Your task to perform on an android device: open chrome and create a bookmark for the current page Image 0: 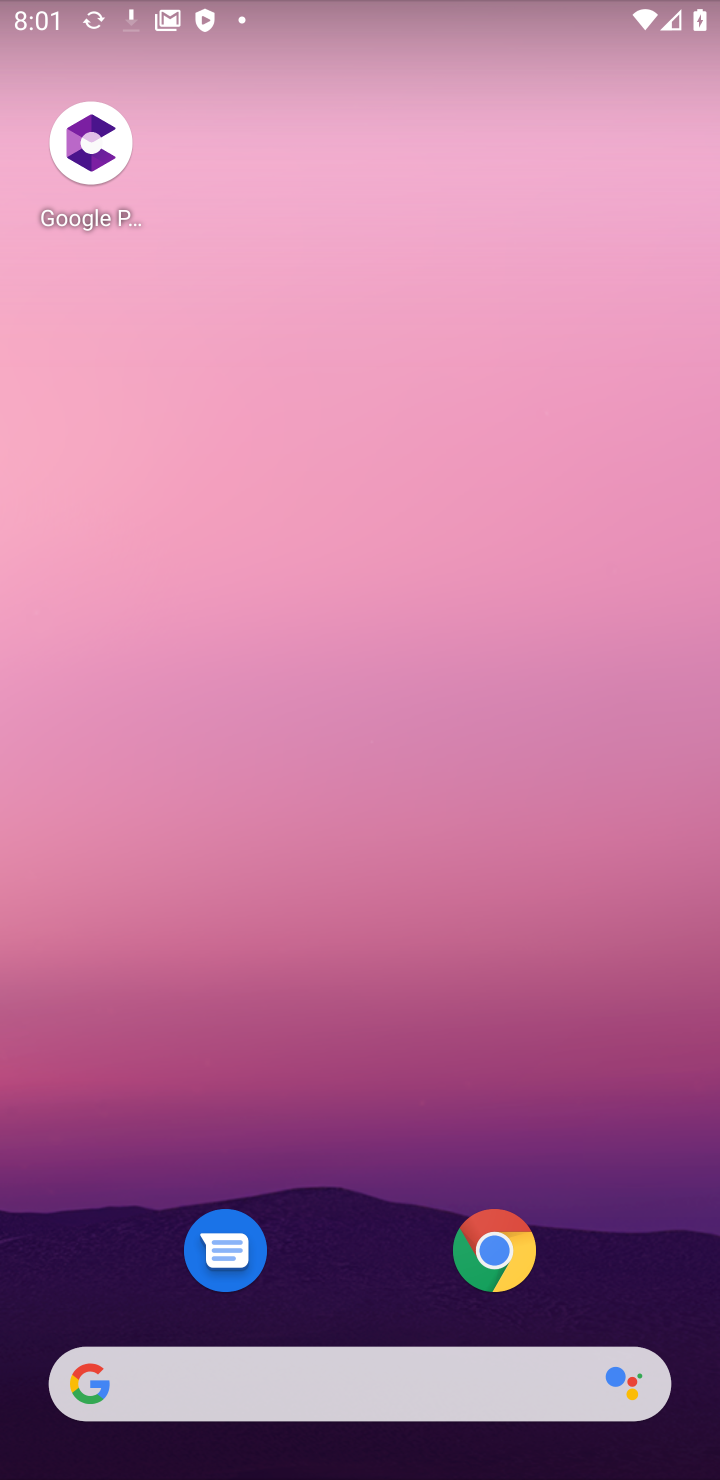
Step 0: click (498, 1263)
Your task to perform on an android device: open chrome and create a bookmark for the current page Image 1: 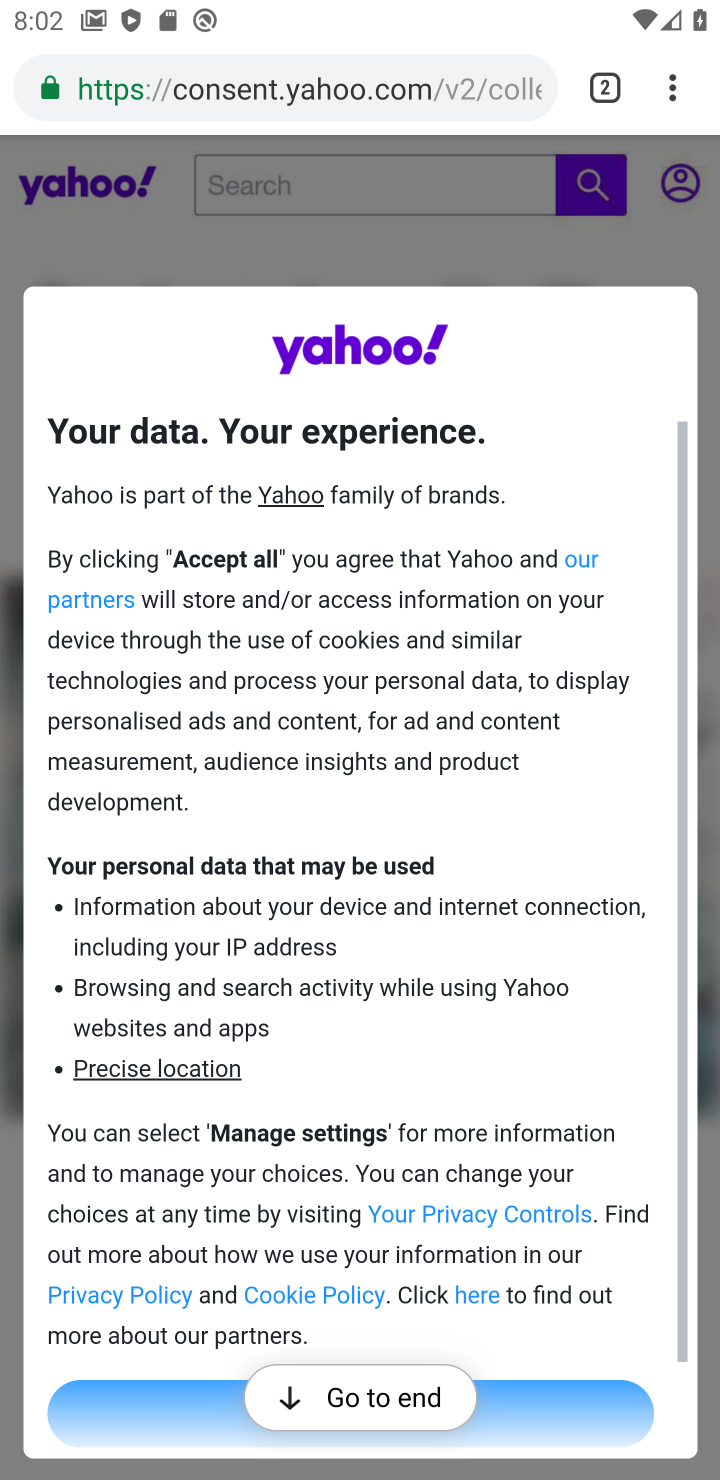
Step 1: click (667, 75)
Your task to perform on an android device: open chrome and create a bookmark for the current page Image 2: 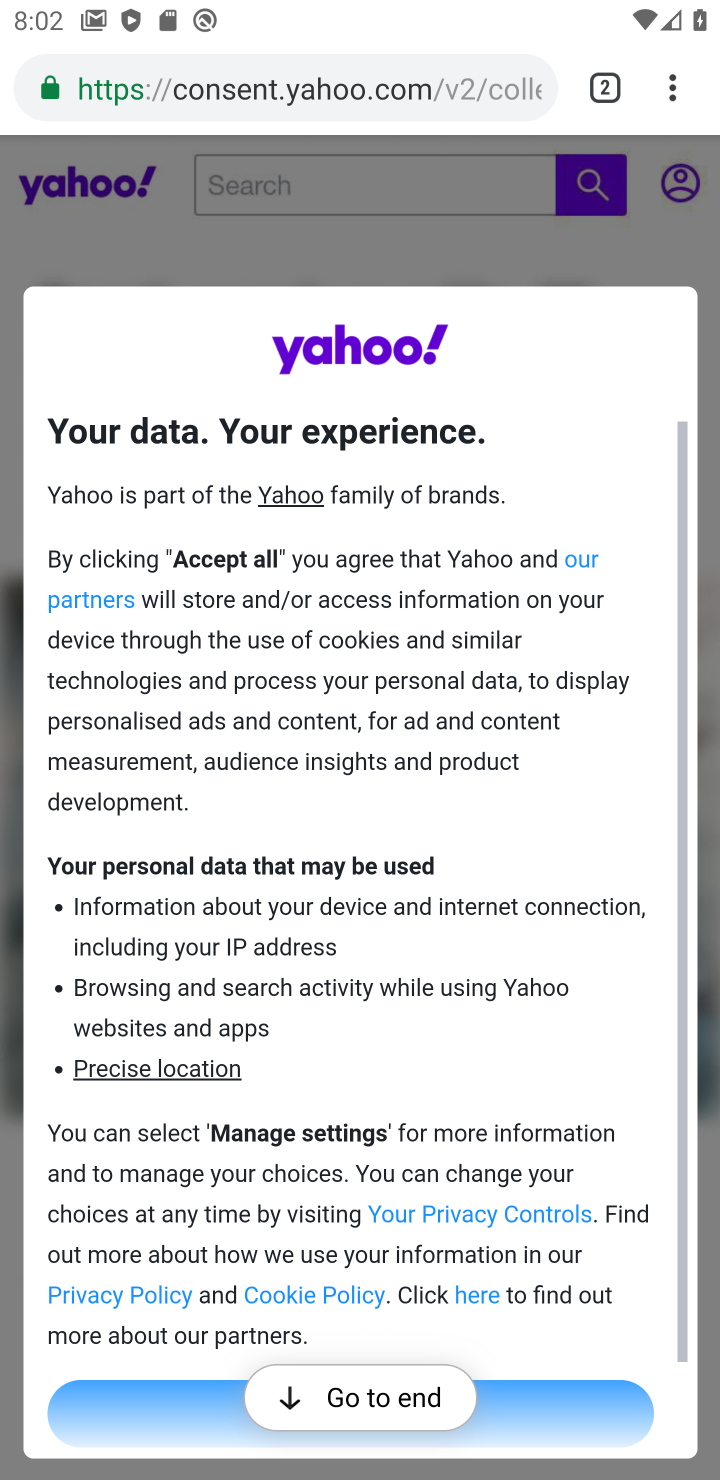
Step 2: click (669, 94)
Your task to perform on an android device: open chrome and create a bookmark for the current page Image 3: 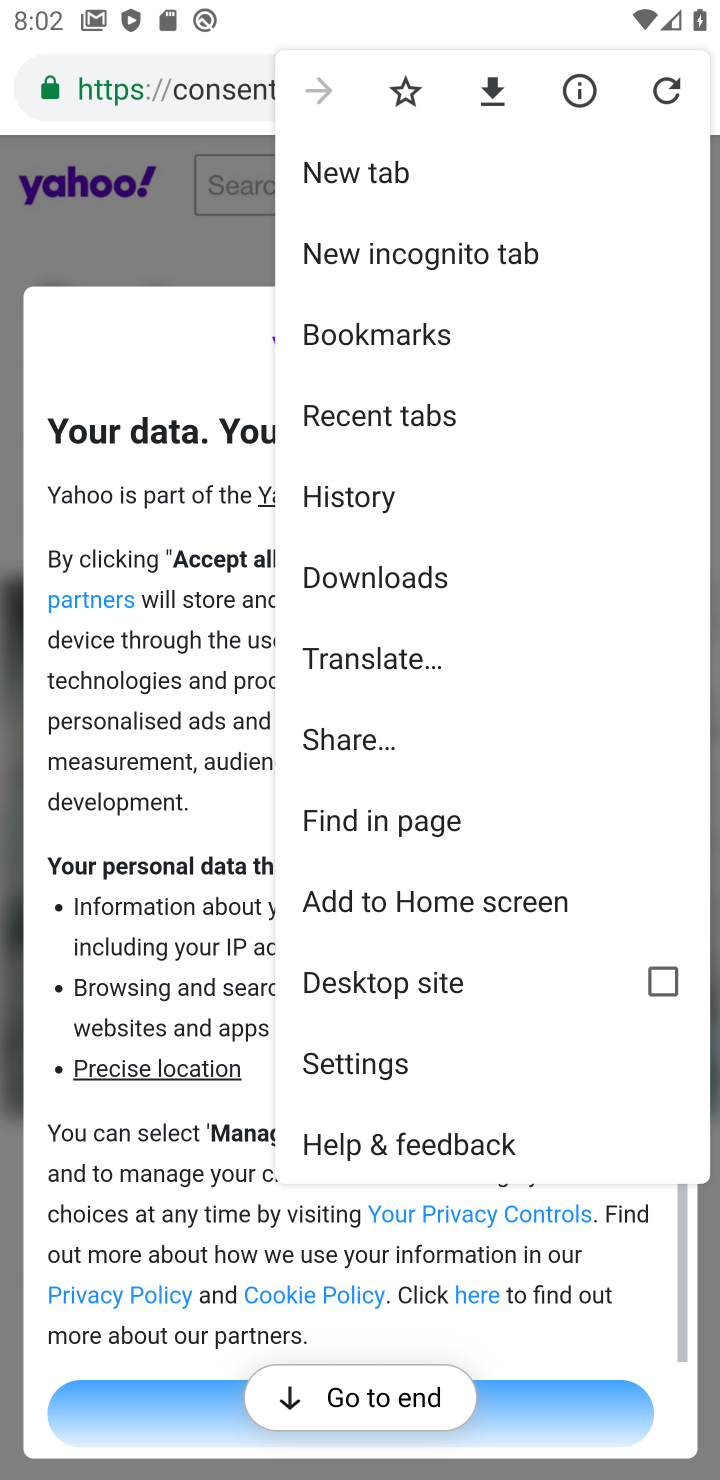
Step 3: click (405, 97)
Your task to perform on an android device: open chrome and create a bookmark for the current page Image 4: 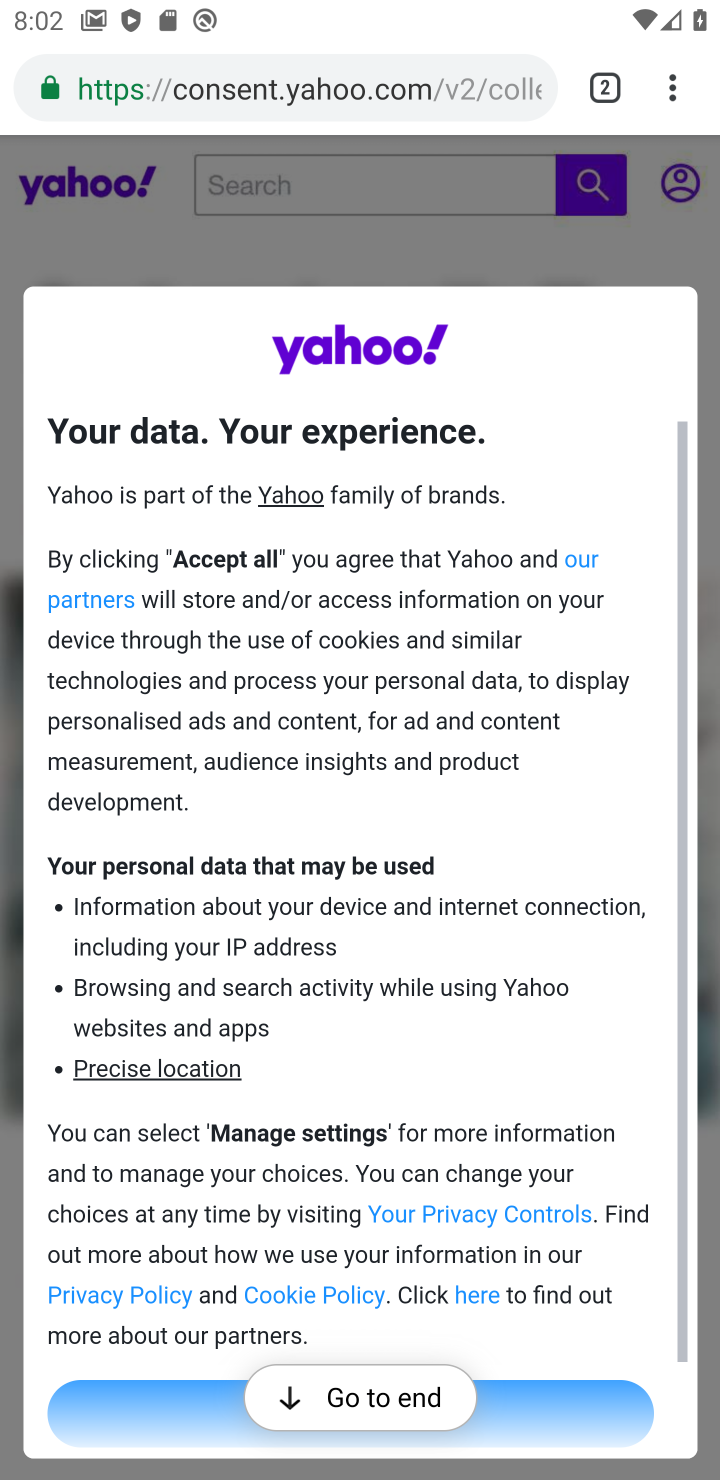
Step 4: click (666, 71)
Your task to perform on an android device: open chrome and create a bookmark for the current page Image 5: 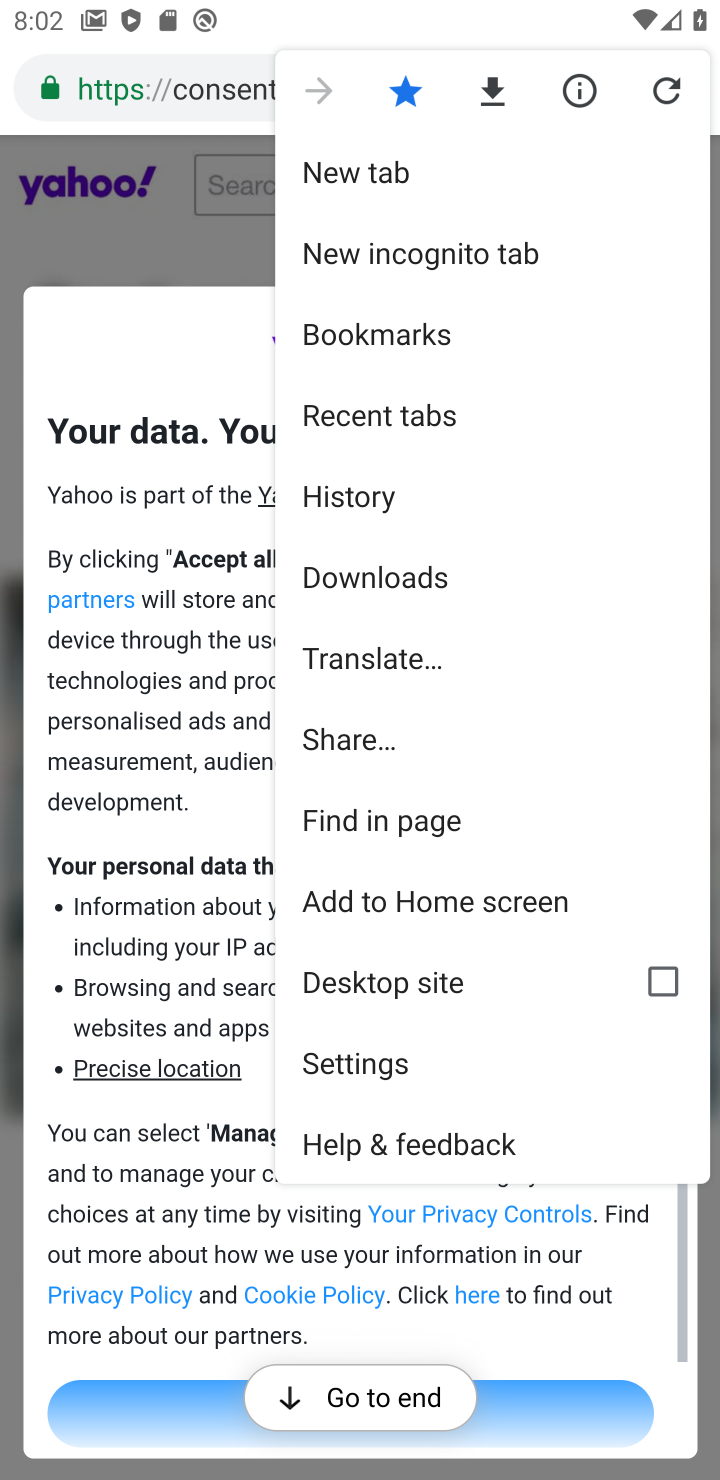
Step 5: task complete